Your task to perform on an android device: turn off notifications settings in the gmail app Image 0: 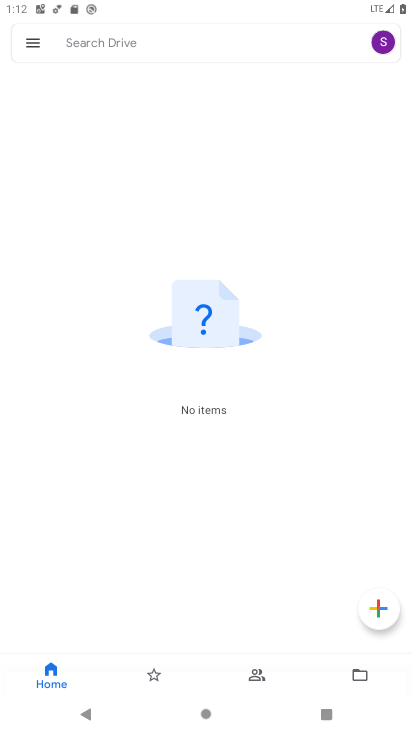
Step 0: click (45, 48)
Your task to perform on an android device: turn off notifications settings in the gmail app Image 1: 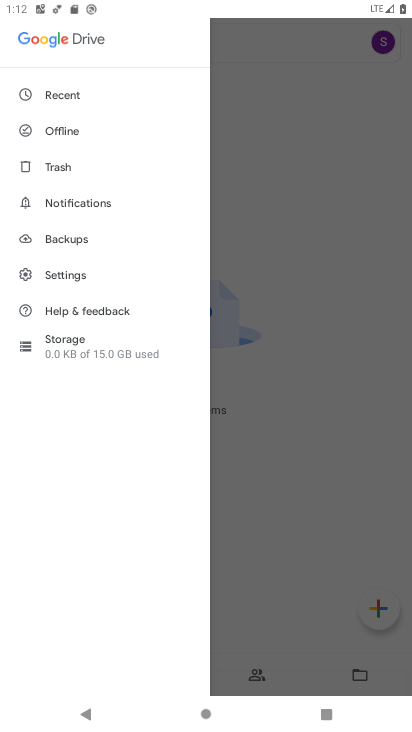
Step 1: press home button
Your task to perform on an android device: turn off notifications settings in the gmail app Image 2: 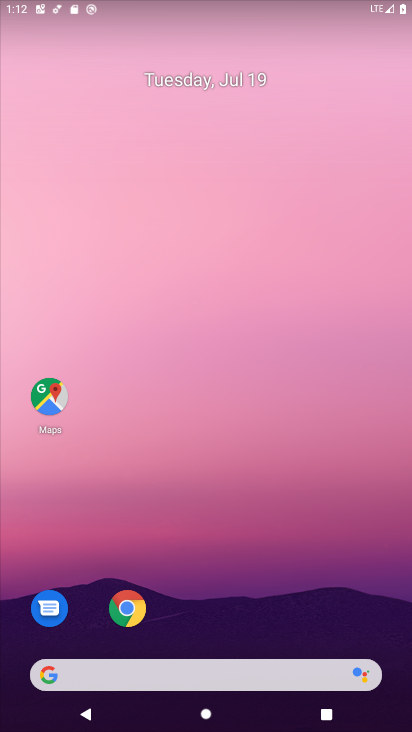
Step 2: drag from (189, 606) to (195, 125)
Your task to perform on an android device: turn off notifications settings in the gmail app Image 3: 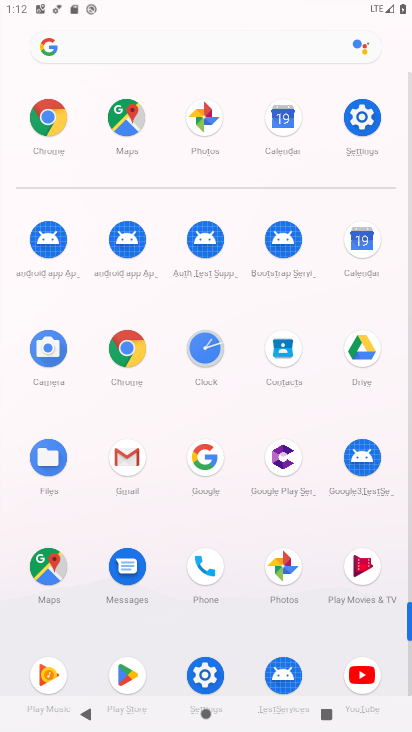
Step 3: click (128, 462)
Your task to perform on an android device: turn off notifications settings in the gmail app Image 4: 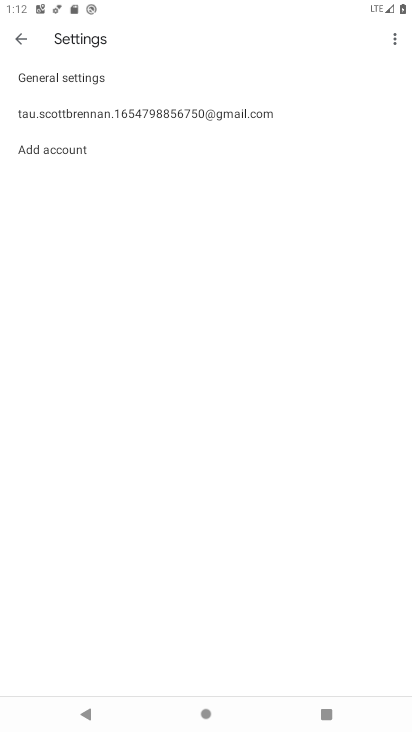
Step 4: press back button
Your task to perform on an android device: turn off notifications settings in the gmail app Image 5: 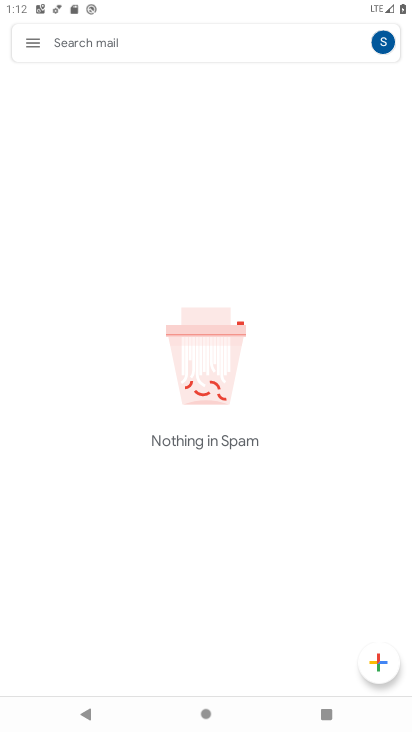
Step 5: click (34, 43)
Your task to perform on an android device: turn off notifications settings in the gmail app Image 6: 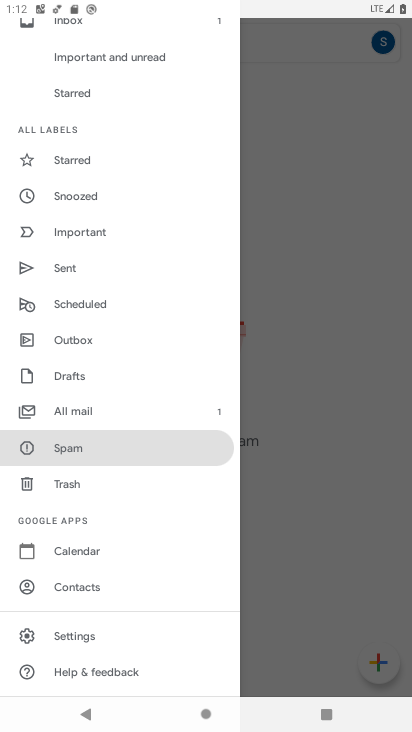
Step 6: click (70, 636)
Your task to perform on an android device: turn off notifications settings in the gmail app Image 7: 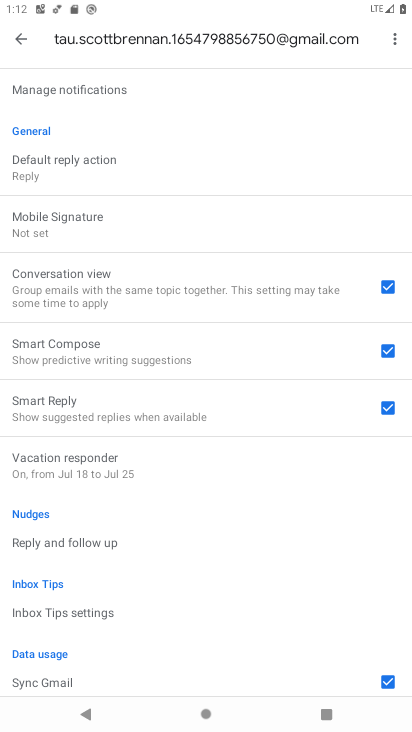
Step 7: drag from (132, 626) to (217, 209)
Your task to perform on an android device: turn off notifications settings in the gmail app Image 8: 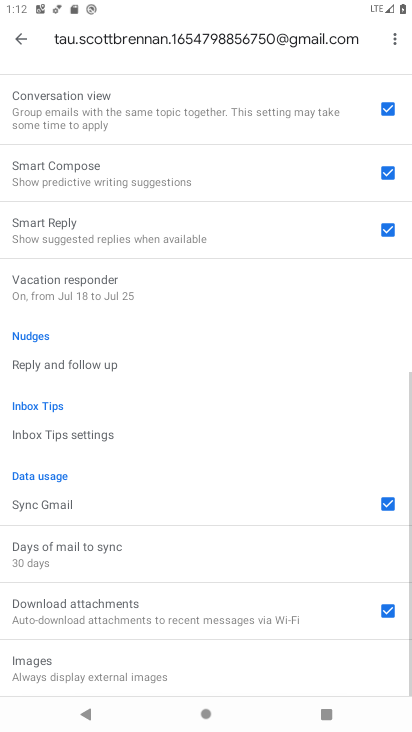
Step 8: drag from (203, 603) to (243, 182)
Your task to perform on an android device: turn off notifications settings in the gmail app Image 9: 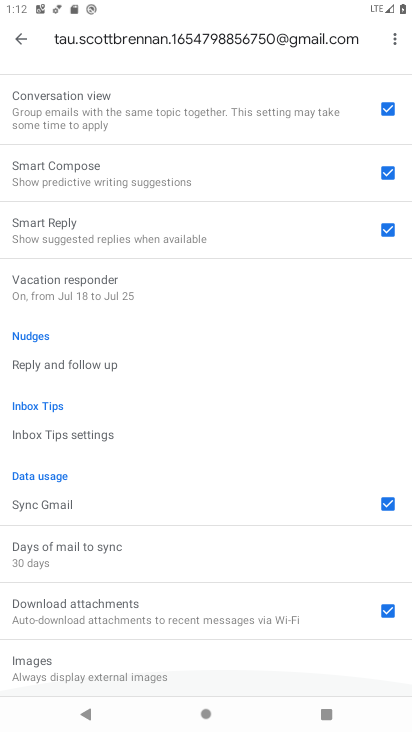
Step 9: drag from (243, 182) to (239, 660)
Your task to perform on an android device: turn off notifications settings in the gmail app Image 10: 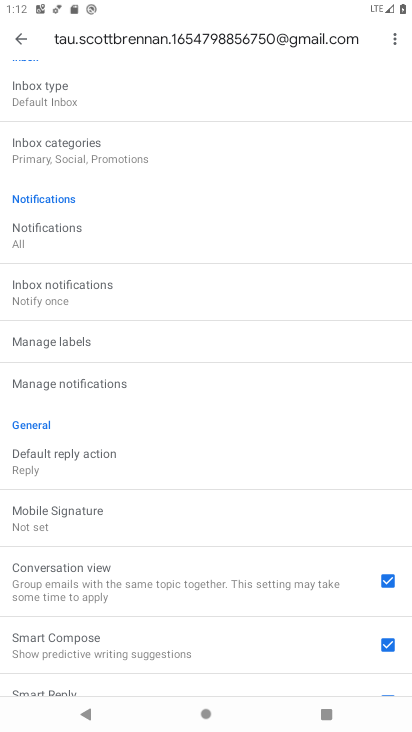
Step 10: click (176, 247)
Your task to perform on an android device: turn off notifications settings in the gmail app Image 11: 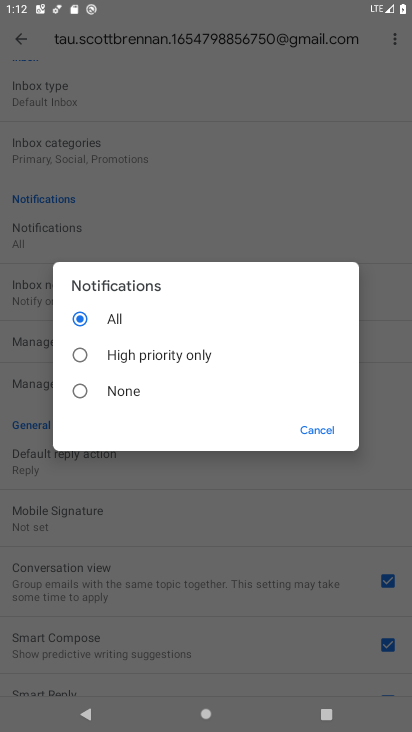
Step 11: click (138, 396)
Your task to perform on an android device: turn off notifications settings in the gmail app Image 12: 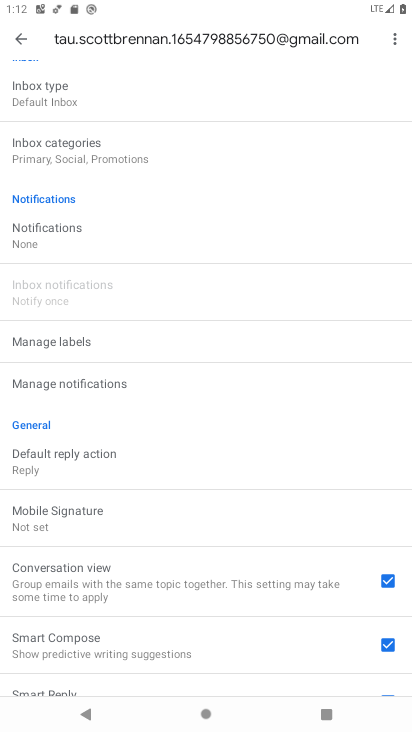
Step 12: click (118, 400)
Your task to perform on an android device: turn off notifications settings in the gmail app Image 13: 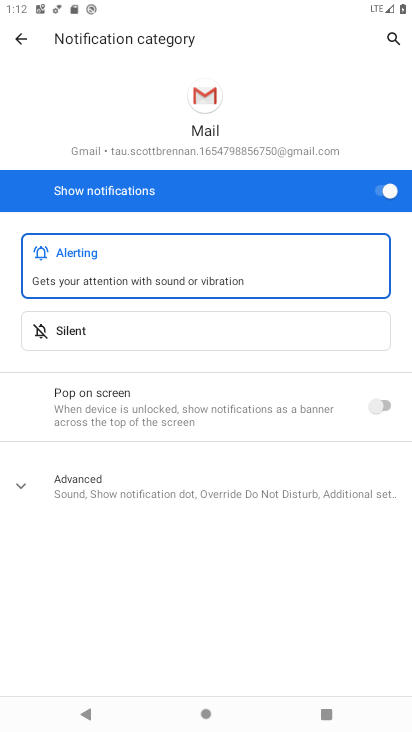
Step 13: click (384, 194)
Your task to perform on an android device: turn off notifications settings in the gmail app Image 14: 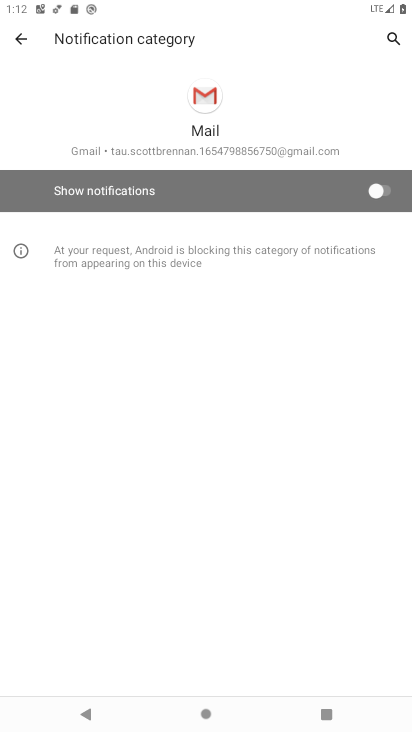
Step 14: task complete